Your task to perform on an android device: move a message to another label in the gmail app Image 0: 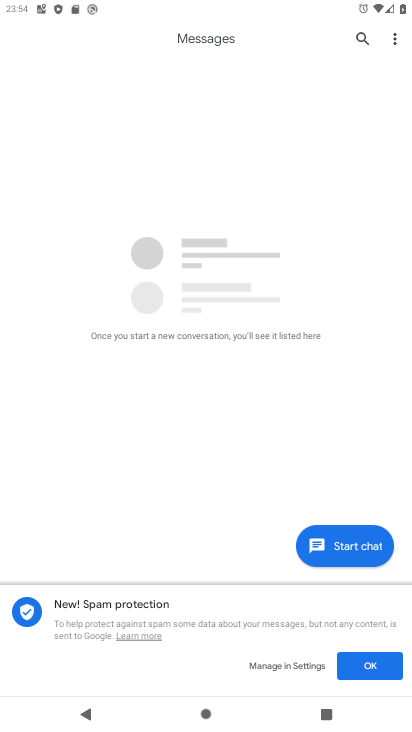
Step 0: press back button
Your task to perform on an android device: move a message to another label in the gmail app Image 1: 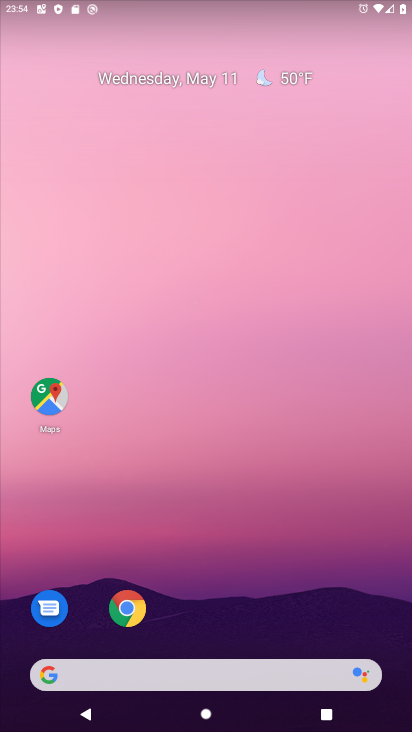
Step 1: drag from (283, 574) to (266, 64)
Your task to perform on an android device: move a message to another label in the gmail app Image 2: 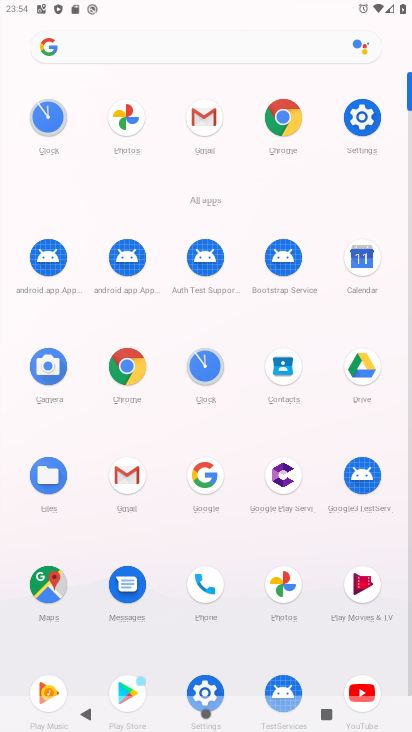
Step 2: click (203, 118)
Your task to perform on an android device: move a message to another label in the gmail app Image 3: 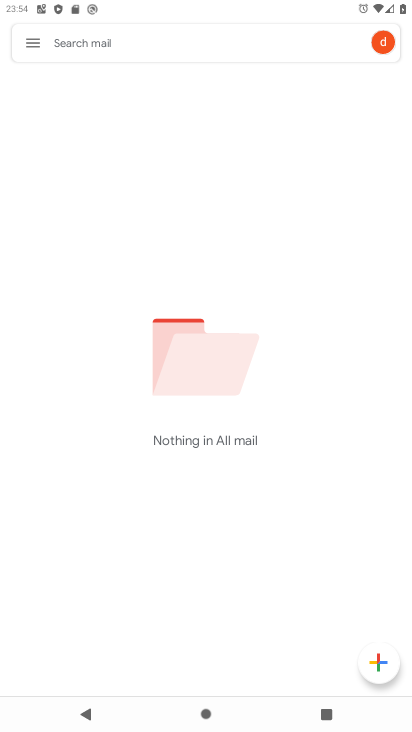
Step 3: click (29, 43)
Your task to perform on an android device: move a message to another label in the gmail app Image 4: 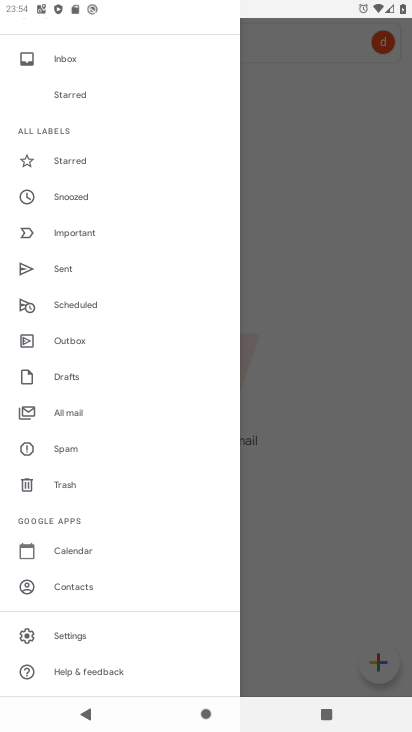
Step 4: click (71, 66)
Your task to perform on an android device: move a message to another label in the gmail app Image 5: 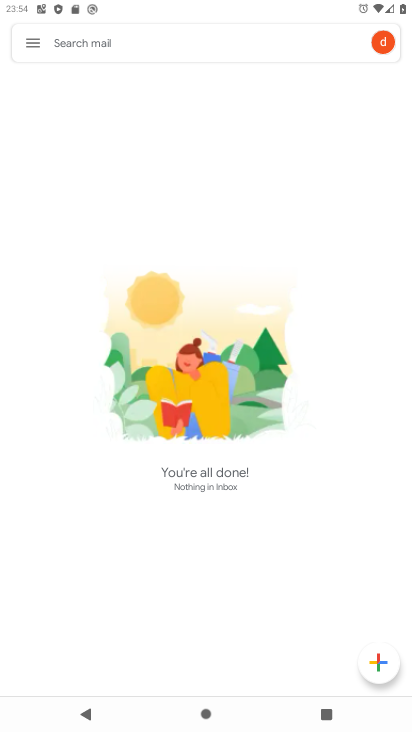
Step 5: click (30, 44)
Your task to perform on an android device: move a message to another label in the gmail app Image 6: 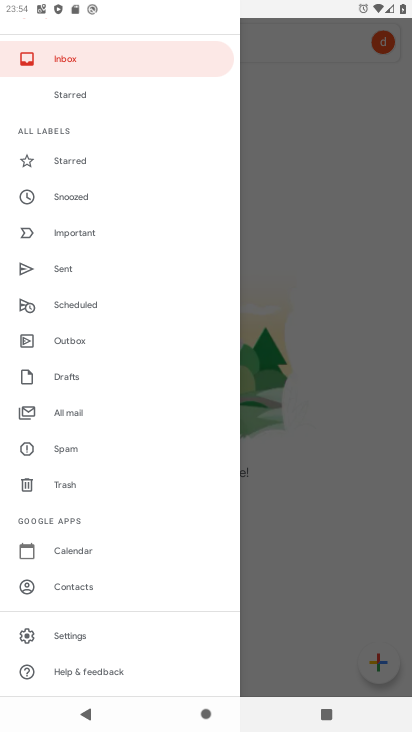
Step 6: click (75, 420)
Your task to perform on an android device: move a message to another label in the gmail app Image 7: 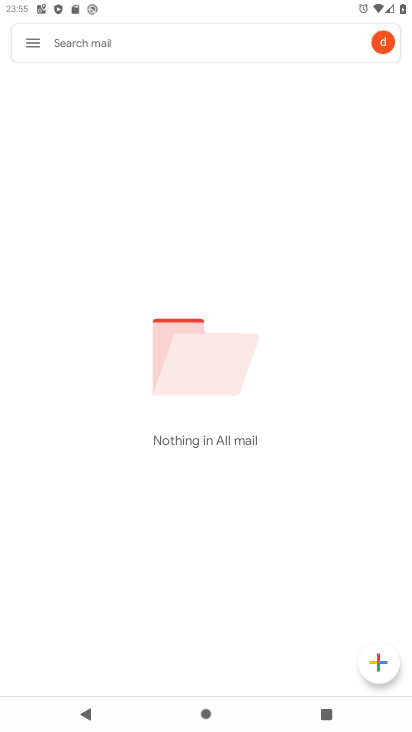
Step 7: task complete